Your task to perform on an android device: What is the news today? Image 0: 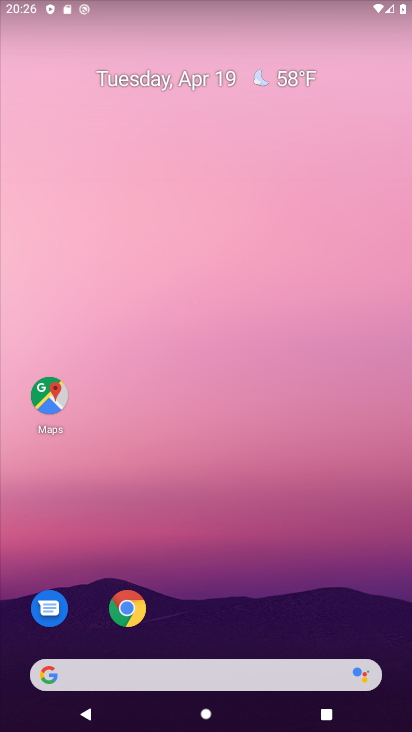
Step 0: drag from (218, 612) to (295, 60)
Your task to perform on an android device: What is the news today? Image 1: 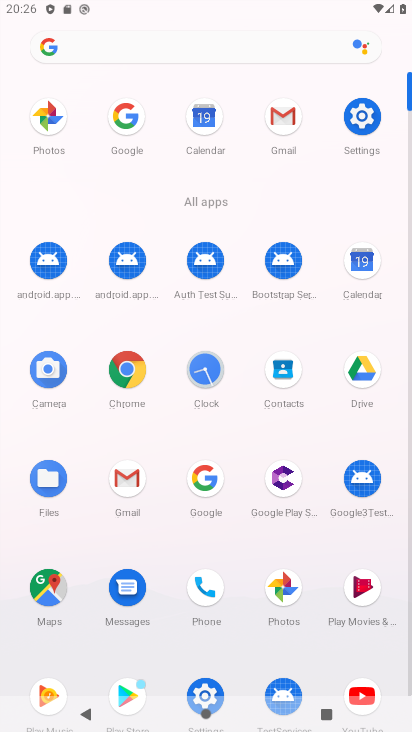
Step 1: click (126, 116)
Your task to perform on an android device: What is the news today? Image 2: 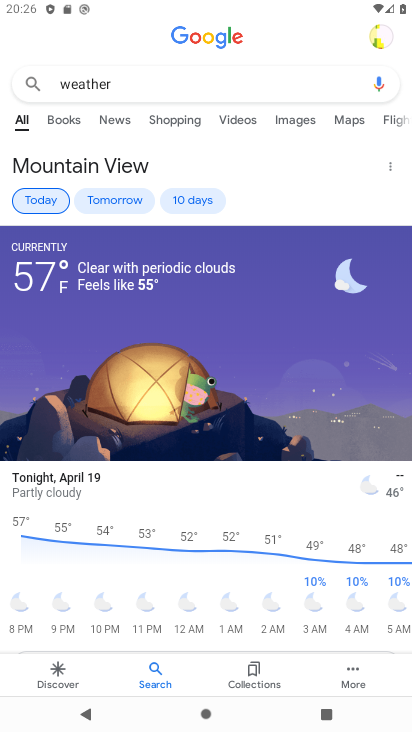
Step 2: click (238, 79)
Your task to perform on an android device: What is the news today? Image 3: 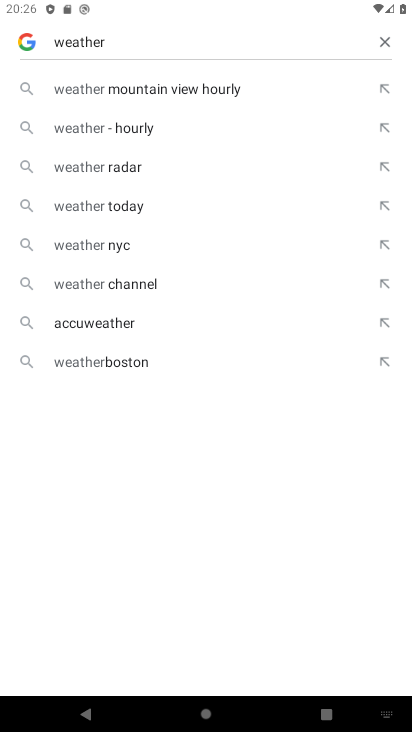
Step 3: click (383, 37)
Your task to perform on an android device: What is the news today? Image 4: 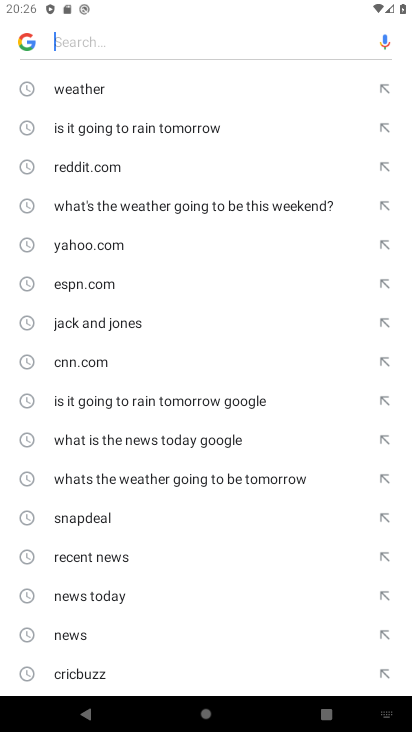
Step 4: click (118, 598)
Your task to perform on an android device: What is the news today? Image 5: 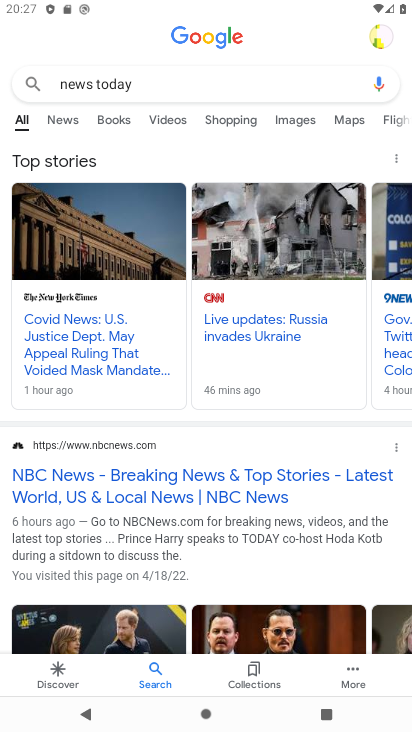
Step 5: task complete